Your task to perform on an android device: turn off data saver in the chrome app Image 0: 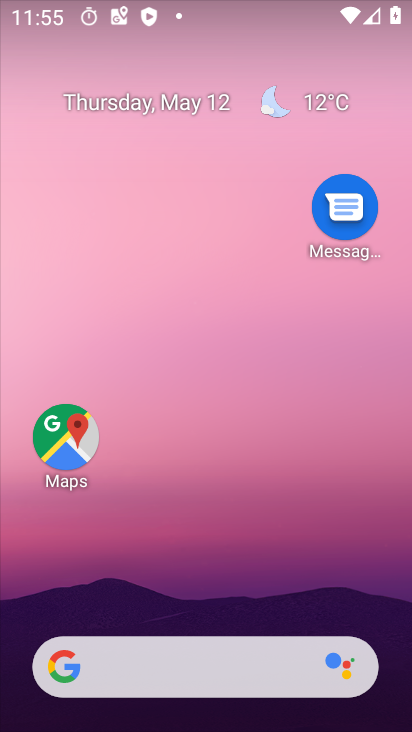
Step 0: press home button
Your task to perform on an android device: turn off data saver in the chrome app Image 1: 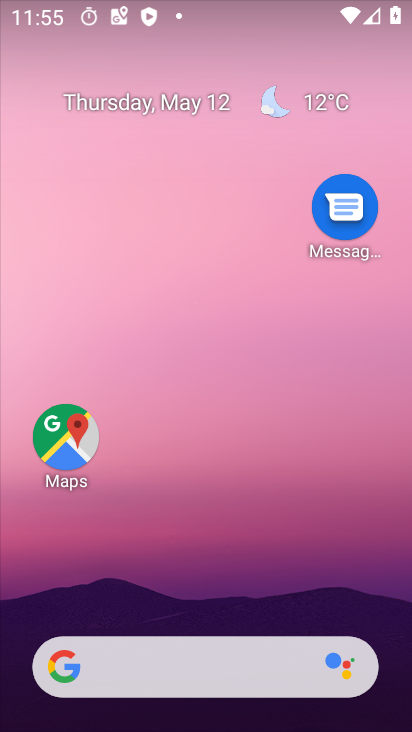
Step 1: press home button
Your task to perform on an android device: turn off data saver in the chrome app Image 2: 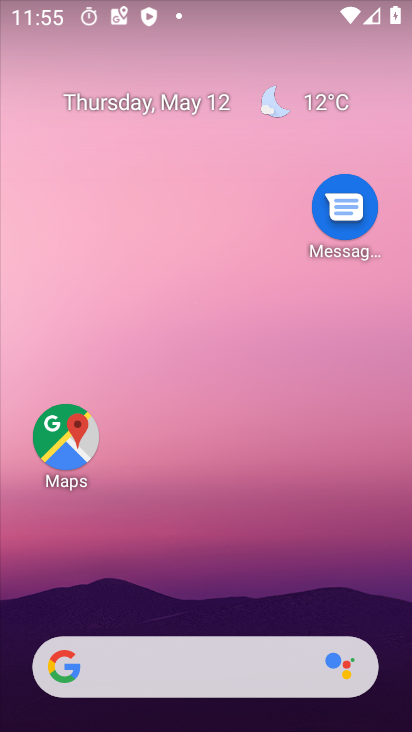
Step 2: drag from (276, 491) to (106, 51)
Your task to perform on an android device: turn off data saver in the chrome app Image 3: 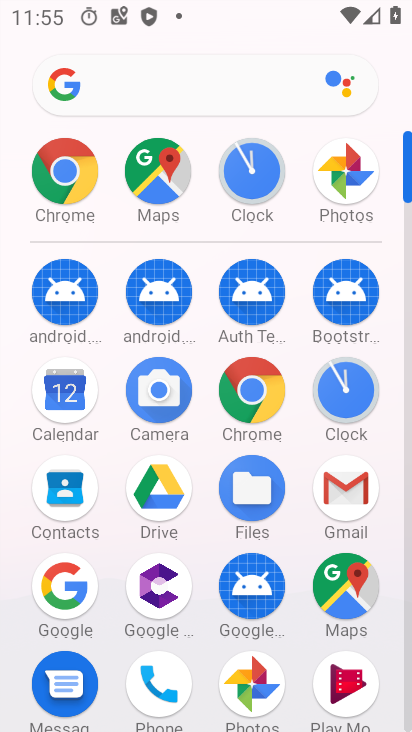
Step 3: click (69, 167)
Your task to perform on an android device: turn off data saver in the chrome app Image 4: 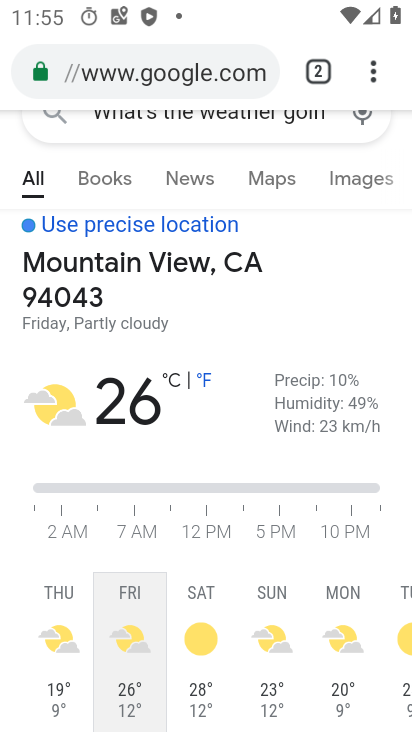
Step 4: click (368, 78)
Your task to perform on an android device: turn off data saver in the chrome app Image 5: 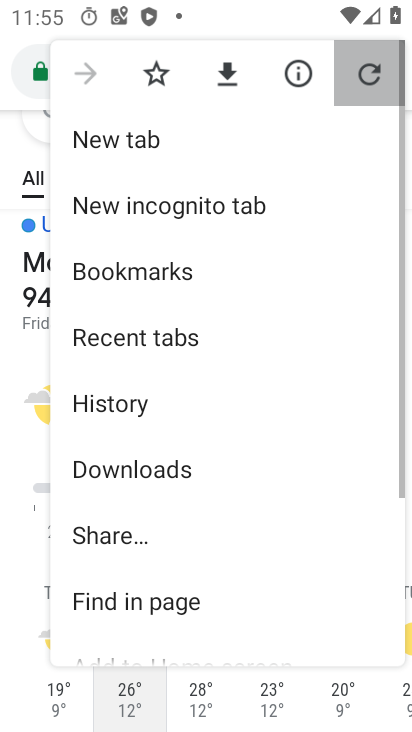
Step 5: drag from (289, 113) to (261, 170)
Your task to perform on an android device: turn off data saver in the chrome app Image 6: 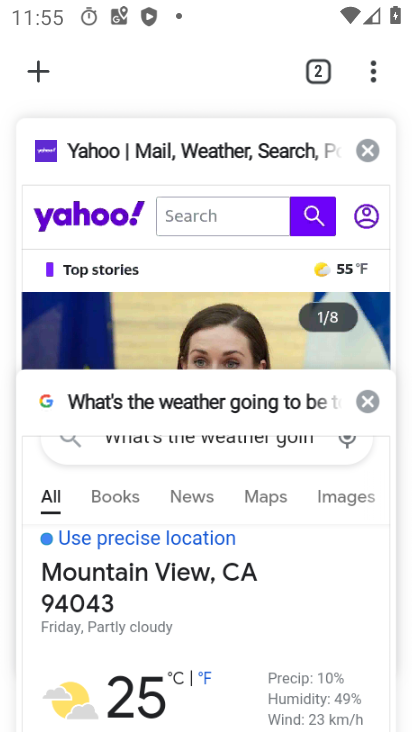
Step 6: click (370, 70)
Your task to perform on an android device: turn off data saver in the chrome app Image 7: 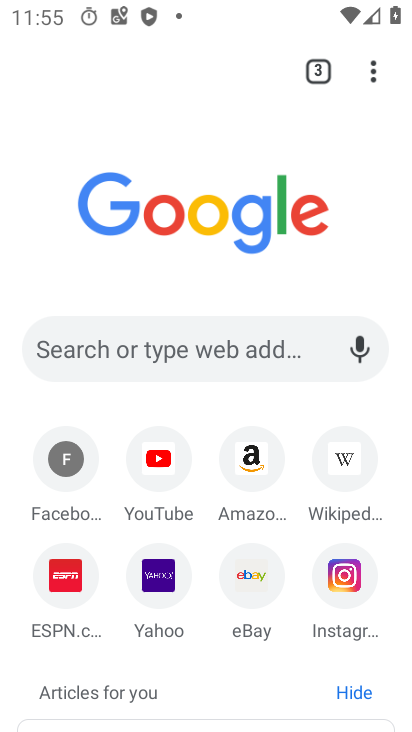
Step 7: drag from (378, 60) to (227, 592)
Your task to perform on an android device: turn off data saver in the chrome app Image 8: 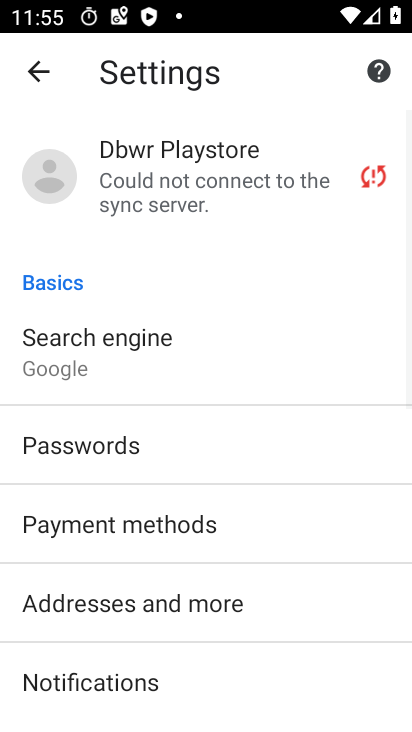
Step 8: drag from (338, 634) to (312, 268)
Your task to perform on an android device: turn off data saver in the chrome app Image 9: 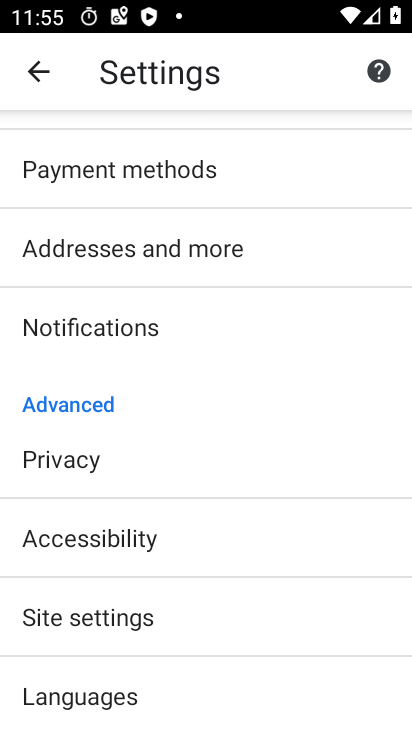
Step 9: drag from (128, 647) to (154, 188)
Your task to perform on an android device: turn off data saver in the chrome app Image 10: 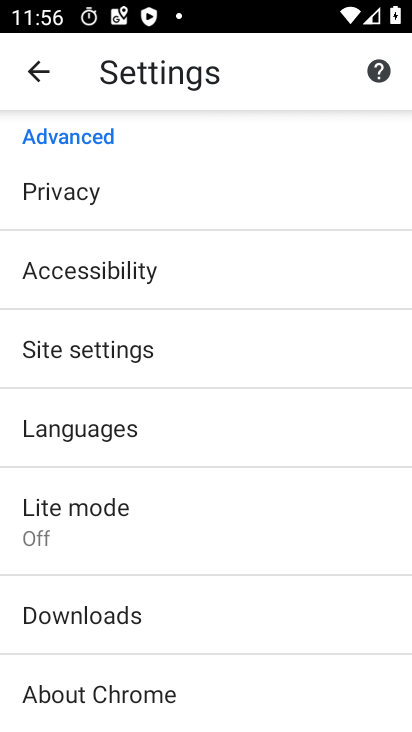
Step 10: click (161, 524)
Your task to perform on an android device: turn off data saver in the chrome app Image 11: 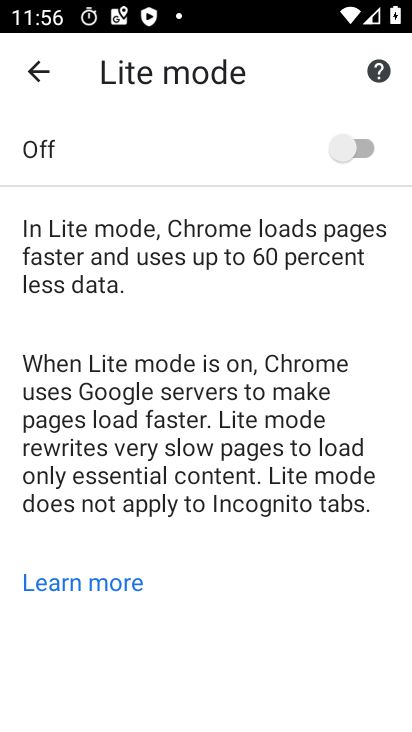
Step 11: task complete